Your task to perform on an android device: Search for sushi restaurants on Maps Image 0: 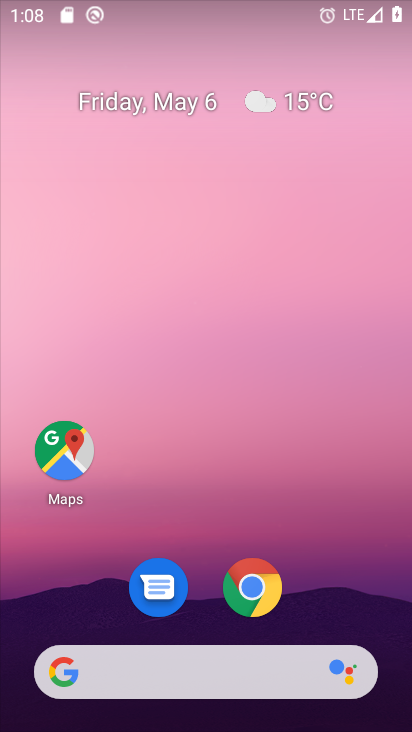
Step 0: click (62, 451)
Your task to perform on an android device: Search for sushi restaurants on Maps Image 1: 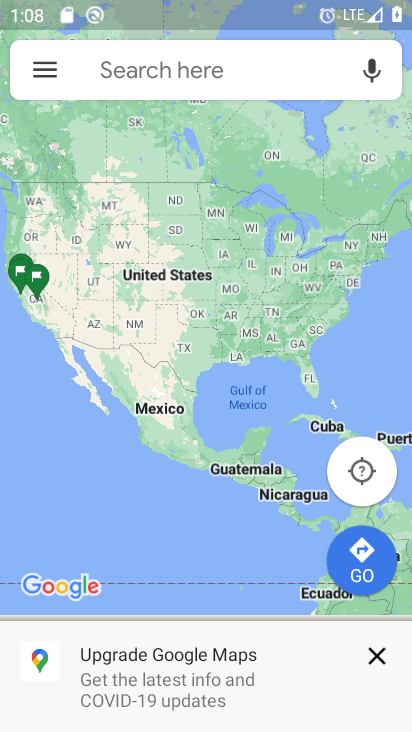
Step 1: click (221, 71)
Your task to perform on an android device: Search for sushi restaurants on Maps Image 2: 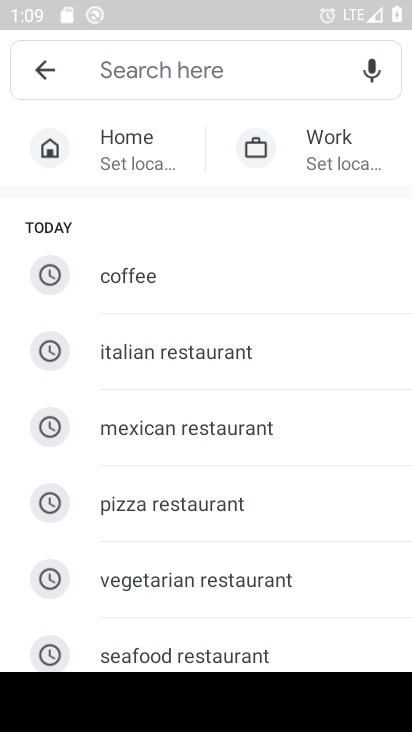
Step 2: type "sushi restaurants"
Your task to perform on an android device: Search for sushi restaurants on Maps Image 3: 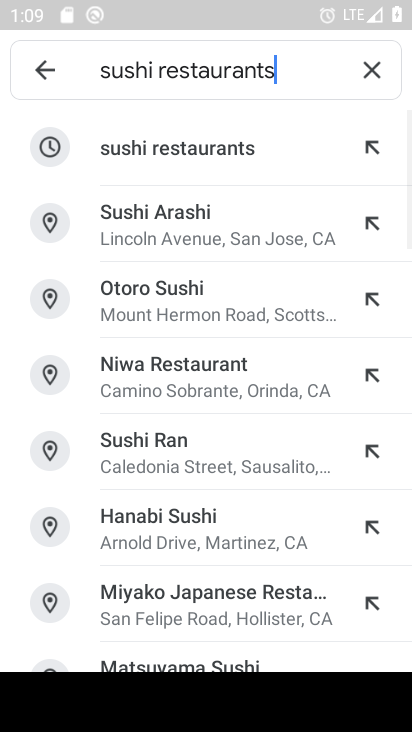
Step 3: click (159, 138)
Your task to perform on an android device: Search for sushi restaurants on Maps Image 4: 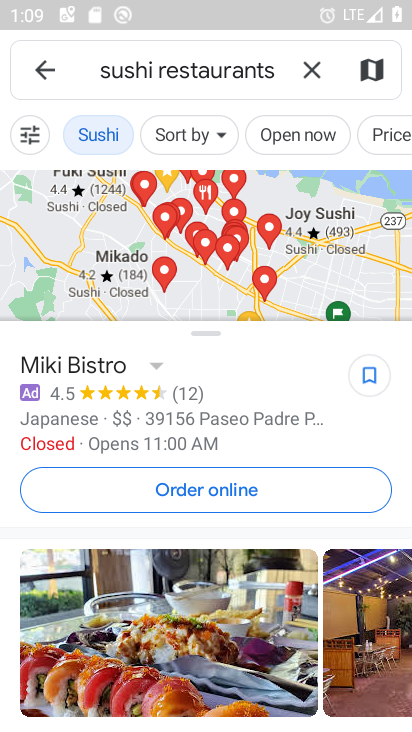
Step 4: task complete